Your task to perform on an android device: remove spam from my inbox in the gmail app Image 0: 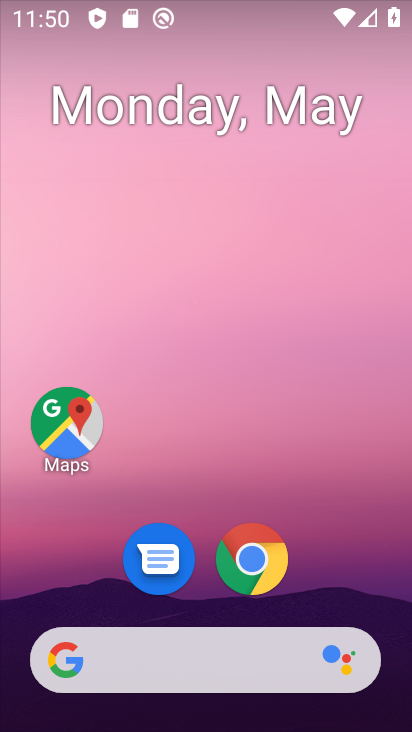
Step 0: drag from (100, 637) to (195, 102)
Your task to perform on an android device: remove spam from my inbox in the gmail app Image 1: 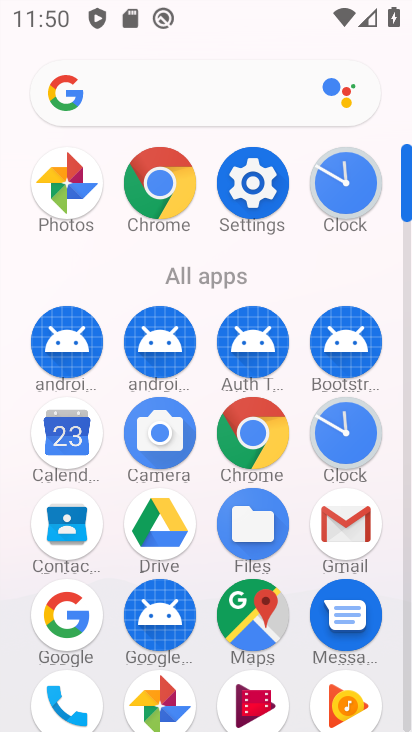
Step 1: click (355, 513)
Your task to perform on an android device: remove spam from my inbox in the gmail app Image 2: 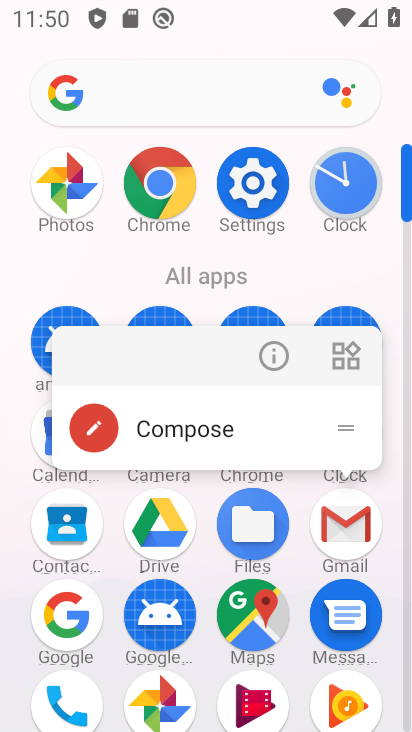
Step 2: click (352, 525)
Your task to perform on an android device: remove spam from my inbox in the gmail app Image 3: 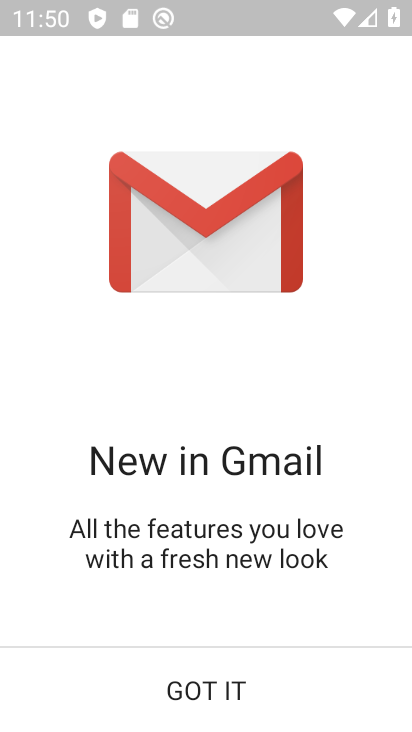
Step 3: click (331, 695)
Your task to perform on an android device: remove spam from my inbox in the gmail app Image 4: 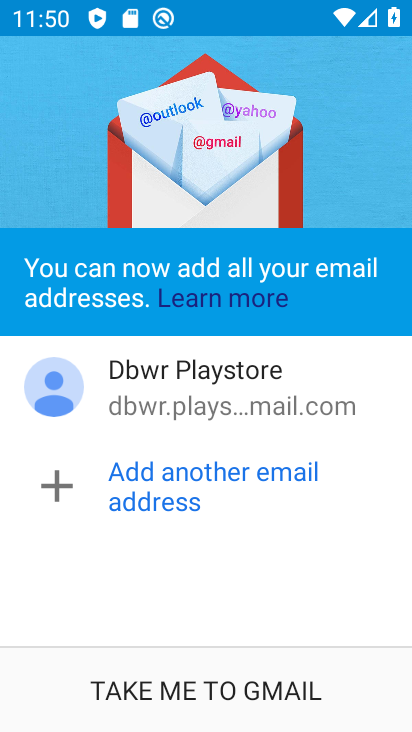
Step 4: click (325, 691)
Your task to perform on an android device: remove spam from my inbox in the gmail app Image 5: 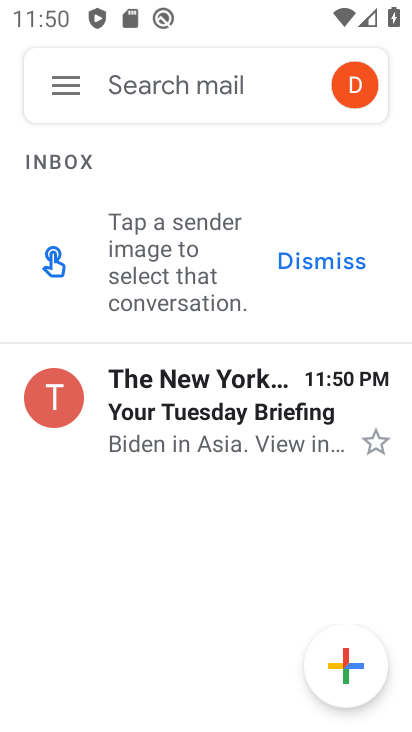
Step 5: click (79, 85)
Your task to perform on an android device: remove spam from my inbox in the gmail app Image 6: 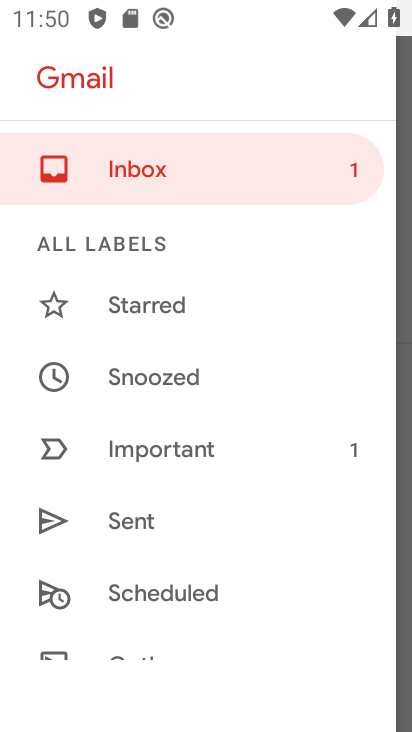
Step 6: drag from (141, 643) to (269, 104)
Your task to perform on an android device: remove spam from my inbox in the gmail app Image 7: 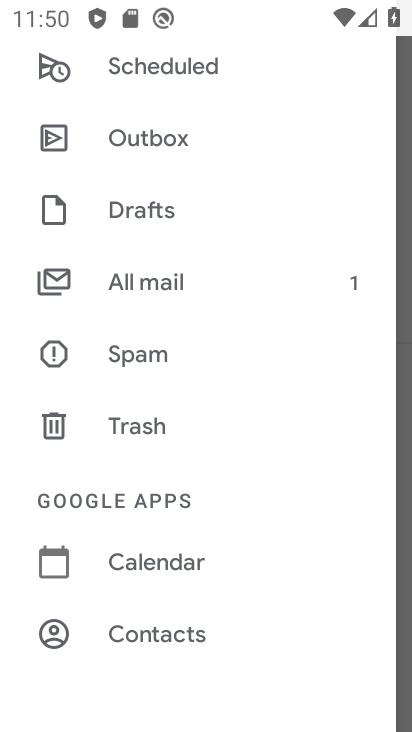
Step 7: click (178, 348)
Your task to perform on an android device: remove spam from my inbox in the gmail app Image 8: 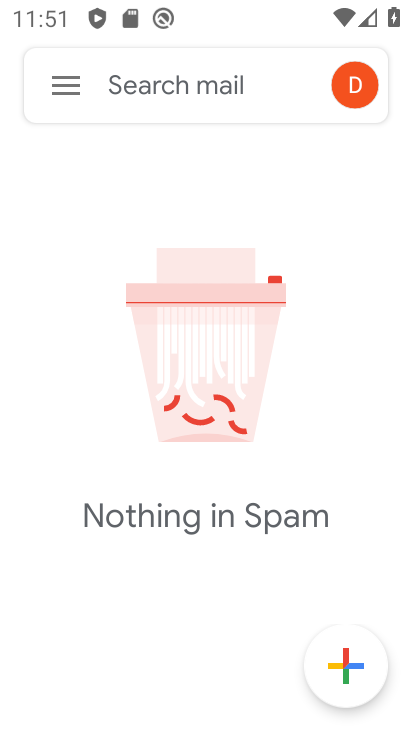
Step 8: task complete